Your task to perform on an android device: Open calendar and show me the first week of next month Image 0: 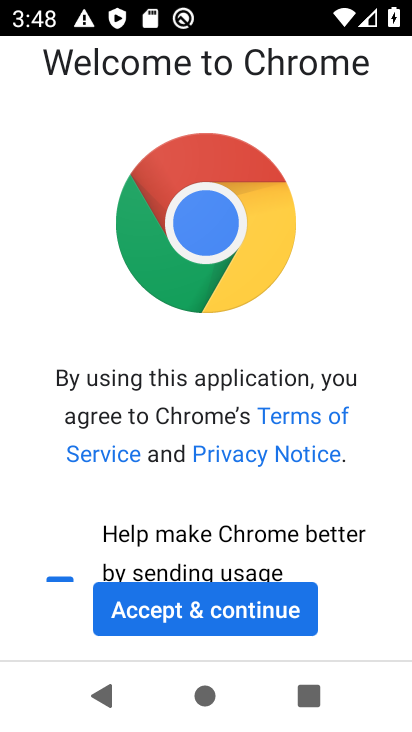
Step 0: press home button
Your task to perform on an android device: Open calendar and show me the first week of next month Image 1: 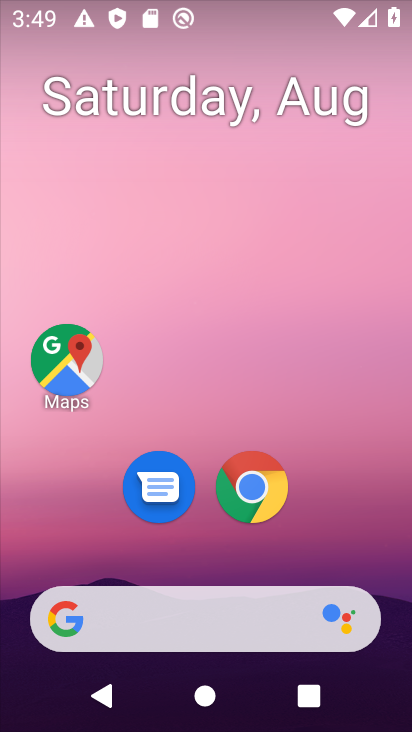
Step 1: drag from (142, 641) to (230, 335)
Your task to perform on an android device: Open calendar and show me the first week of next month Image 2: 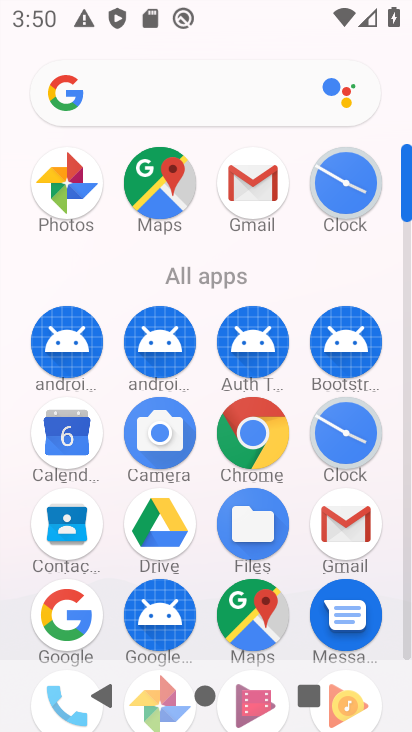
Step 2: click (87, 437)
Your task to perform on an android device: Open calendar and show me the first week of next month Image 3: 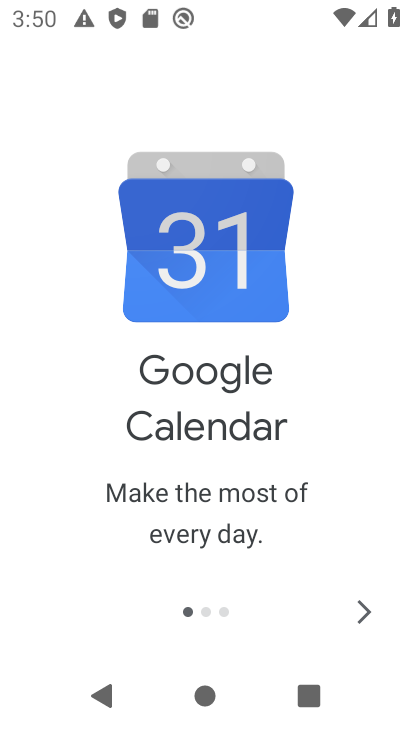
Step 3: click (350, 608)
Your task to perform on an android device: Open calendar and show me the first week of next month Image 4: 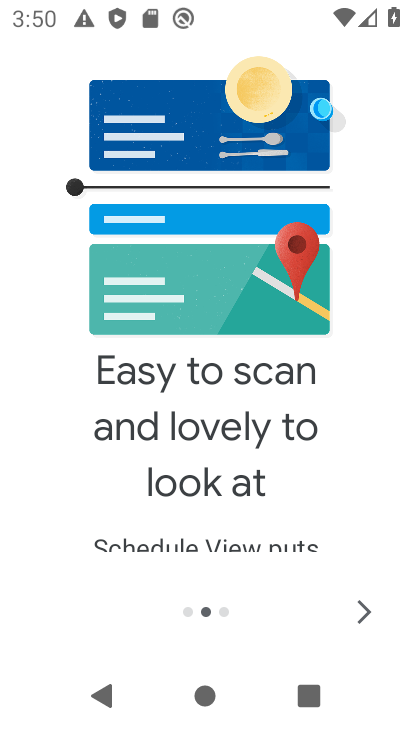
Step 4: click (364, 617)
Your task to perform on an android device: Open calendar and show me the first week of next month Image 5: 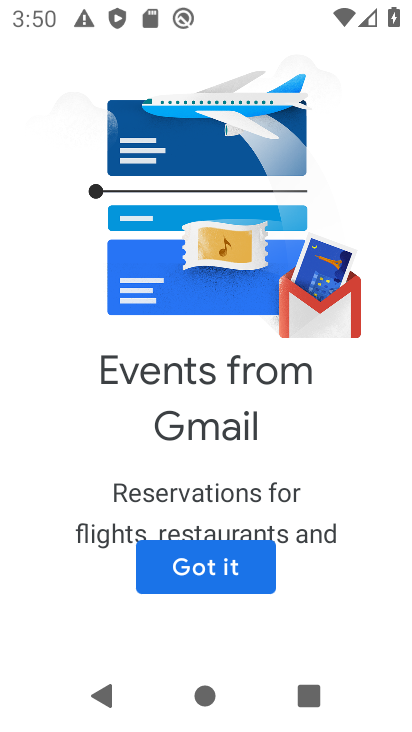
Step 5: click (192, 565)
Your task to perform on an android device: Open calendar and show me the first week of next month Image 6: 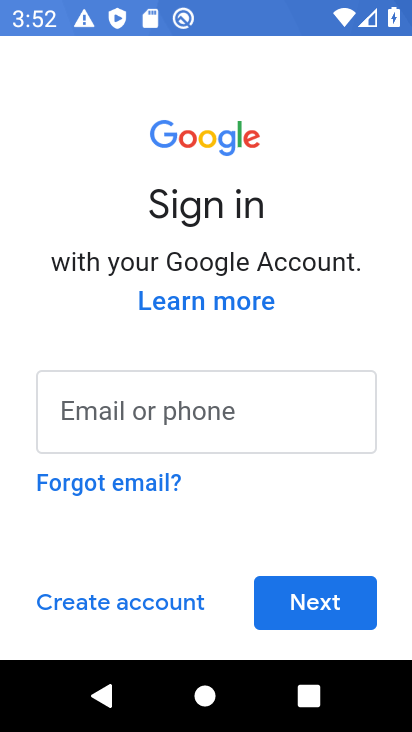
Step 6: press home button
Your task to perform on an android device: Open calendar and show me the first week of next month Image 7: 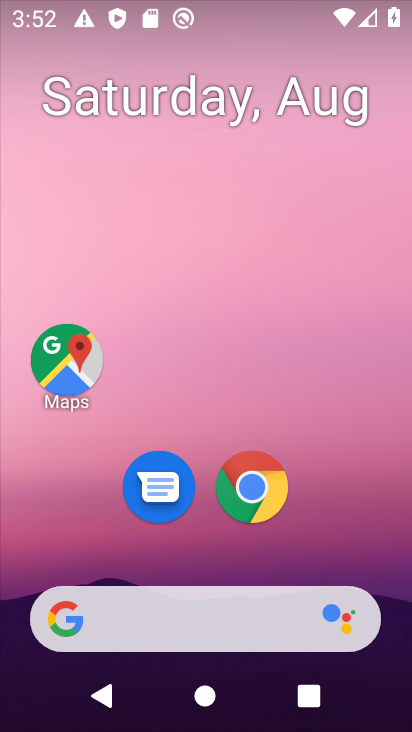
Step 7: drag from (185, 666) to (283, 29)
Your task to perform on an android device: Open calendar and show me the first week of next month Image 8: 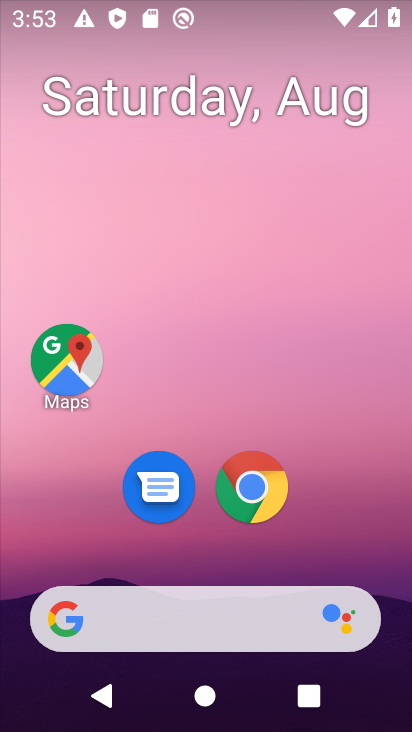
Step 8: drag from (198, 111) to (241, 0)
Your task to perform on an android device: Open calendar and show me the first week of next month Image 9: 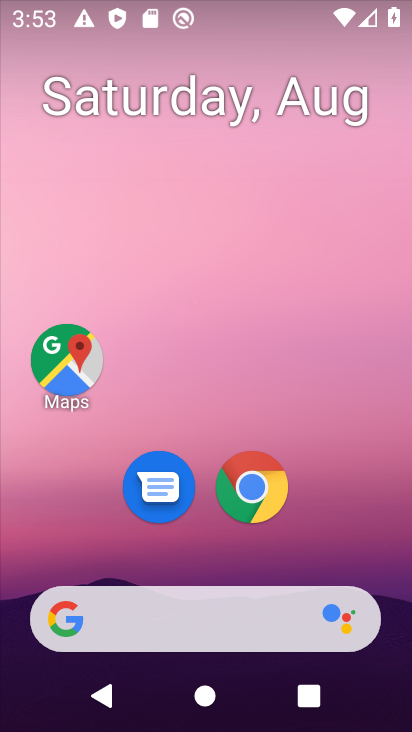
Step 9: drag from (176, 698) to (264, 39)
Your task to perform on an android device: Open calendar and show me the first week of next month Image 10: 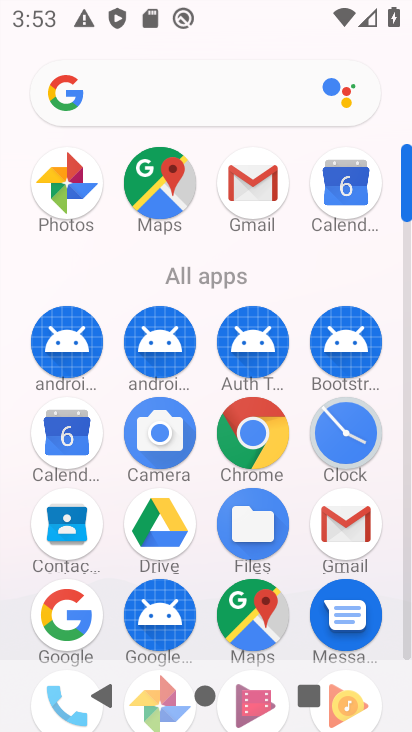
Step 10: click (64, 446)
Your task to perform on an android device: Open calendar and show me the first week of next month Image 11: 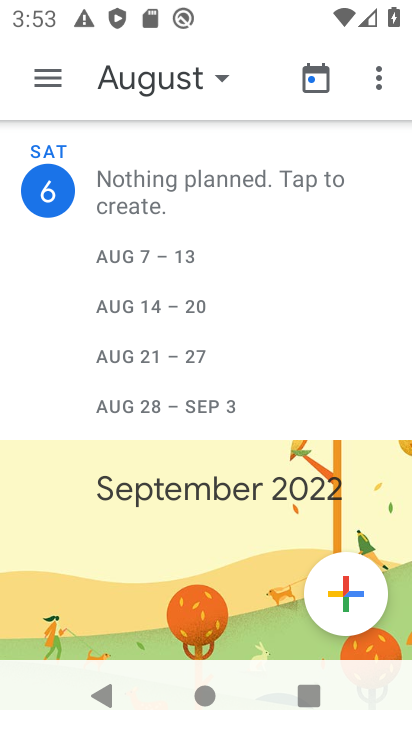
Step 11: click (164, 69)
Your task to perform on an android device: Open calendar and show me the first week of next month Image 12: 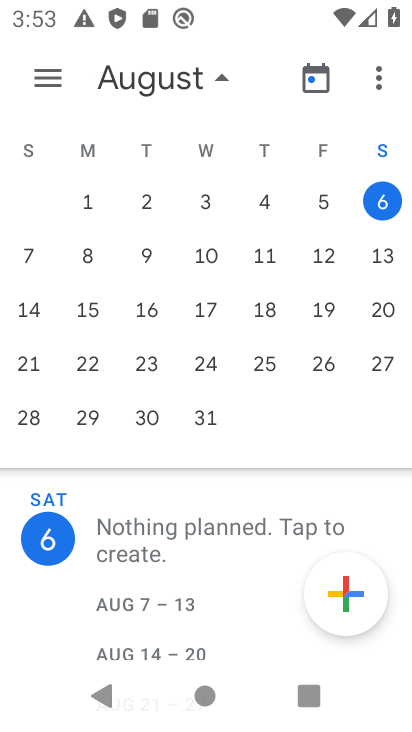
Step 12: drag from (352, 354) to (29, 235)
Your task to perform on an android device: Open calendar and show me the first week of next month Image 13: 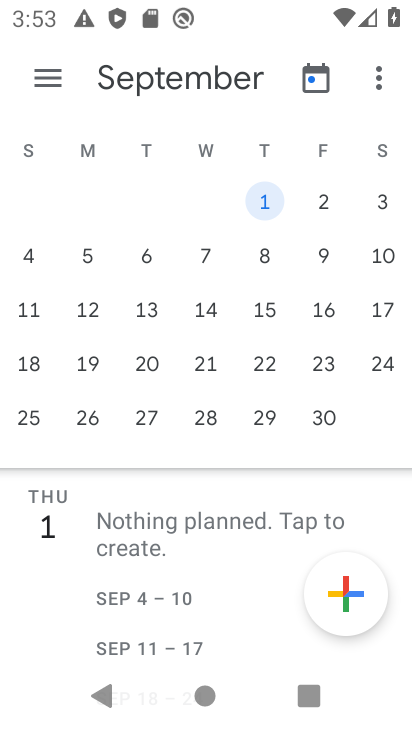
Step 13: click (275, 202)
Your task to perform on an android device: Open calendar and show me the first week of next month Image 14: 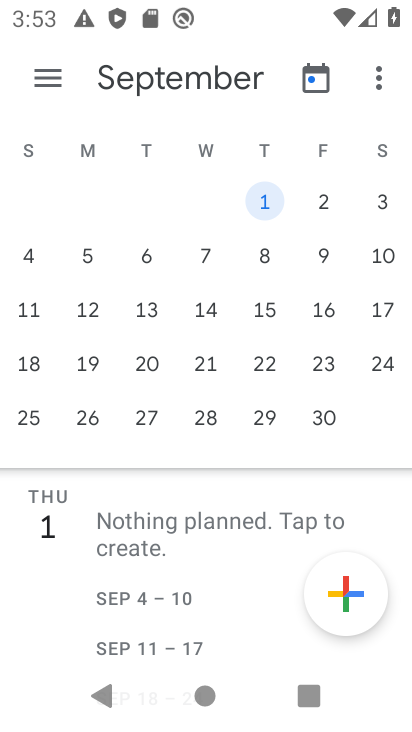
Step 14: task complete